Your task to perform on an android device: set the timer Image 0: 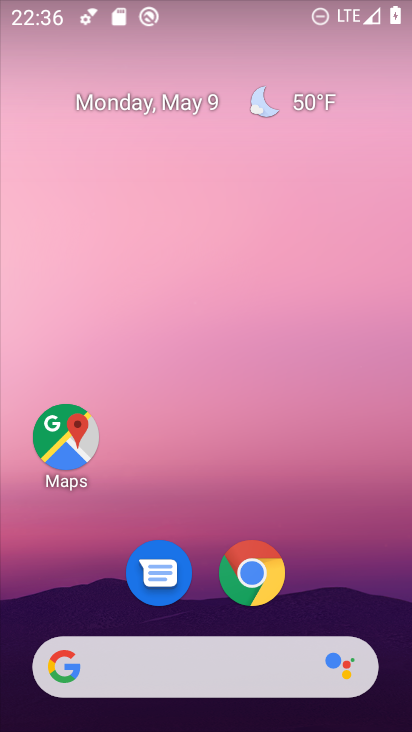
Step 0: drag from (347, 581) to (277, 42)
Your task to perform on an android device: set the timer Image 1: 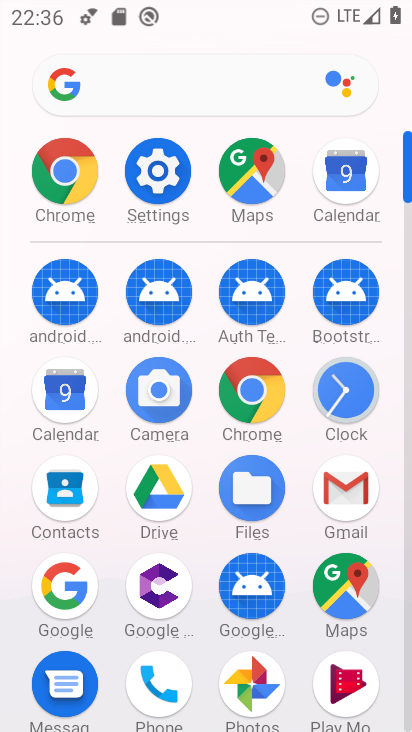
Step 1: click (347, 391)
Your task to perform on an android device: set the timer Image 2: 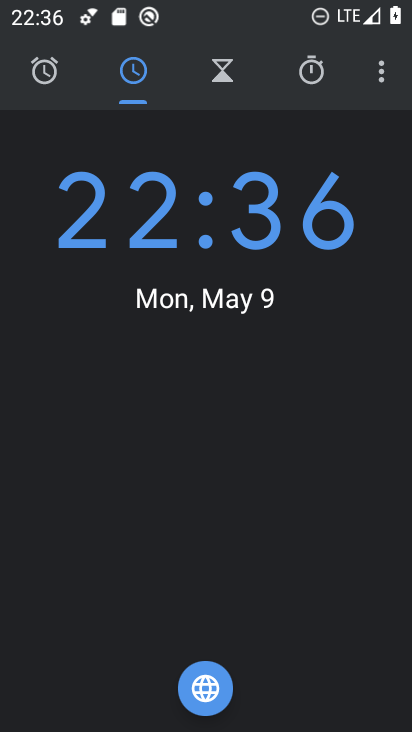
Step 2: click (233, 80)
Your task to perform on an android device: set the timer Image 3: 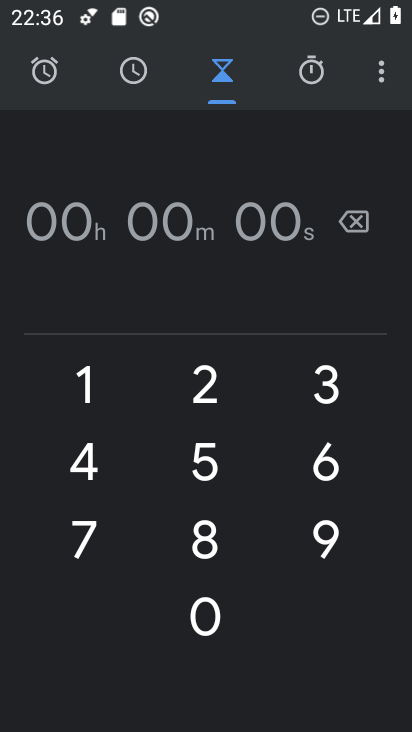
Step 3: click (306, 77)
Your task to perform on an android device: set the timer Image 4: 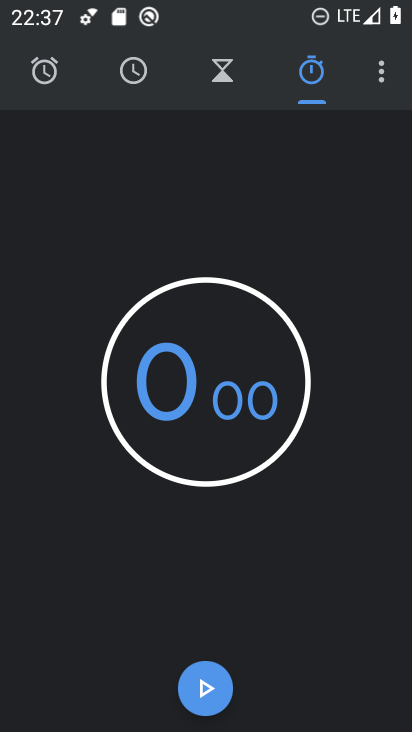
Step 4: click (214, 686)
Your task to perform on an android device: set the timer Image 5: 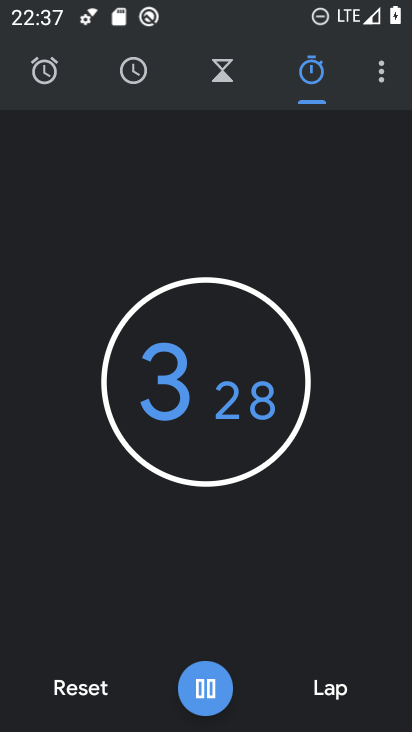
Step 5: click (214, 686)
Your task to perform on an android device: set the timer Image 6: 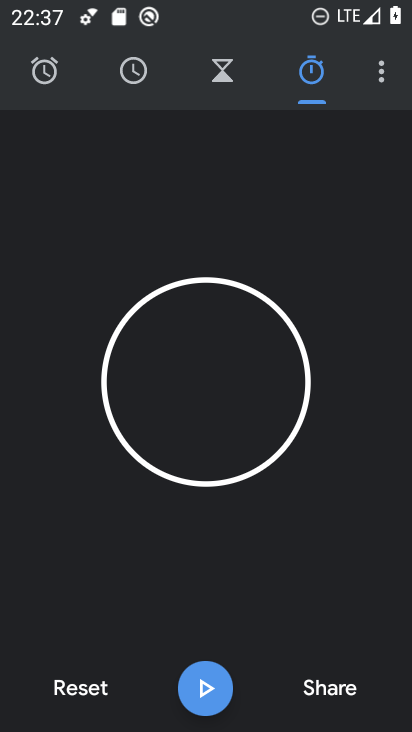
Step 6: task complete